Your task to perform on an android device: Go to Reddit.com Image 0: 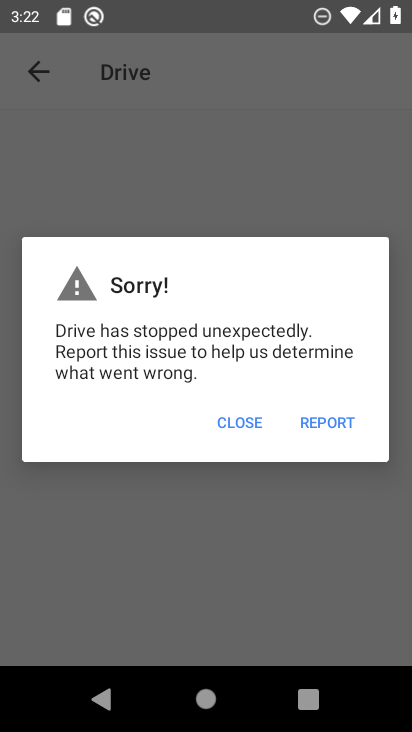
Step 0: press home button
Your task to perform on an android device: Go to Reddit.com Image 1: 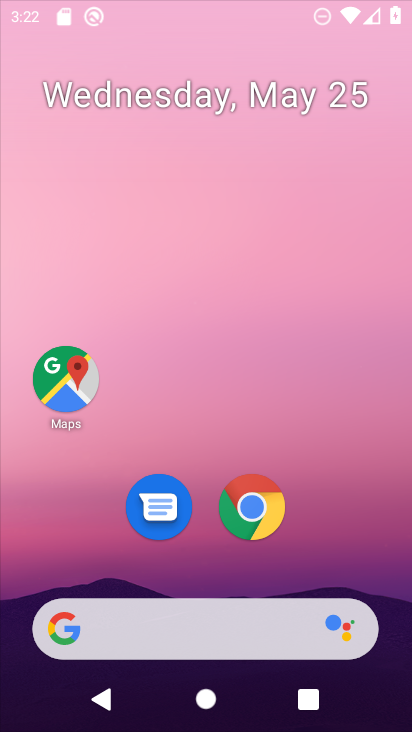
Step 1: drag from (229, 660) to (227, 228)
Your task to perform on an android device: Go to Reddit.com Image 2: 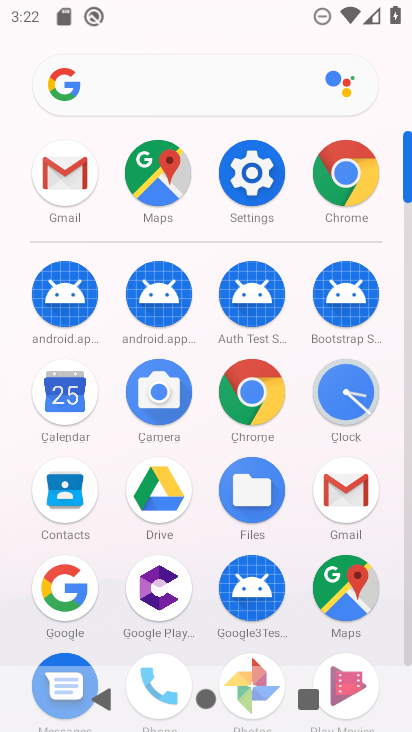
Step 2: click (356, 191)
Your task to perform on an android device: Go to Reddit.com Image 3: 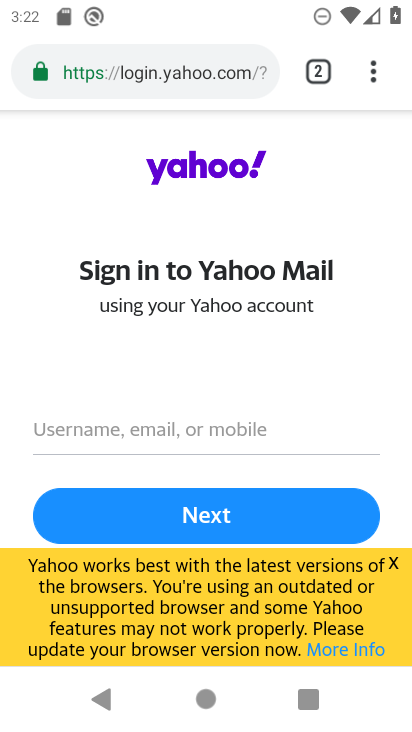
Step 3: click (224, 83)
Your task to perform on an android device: Go to Reddit.com Image 4: 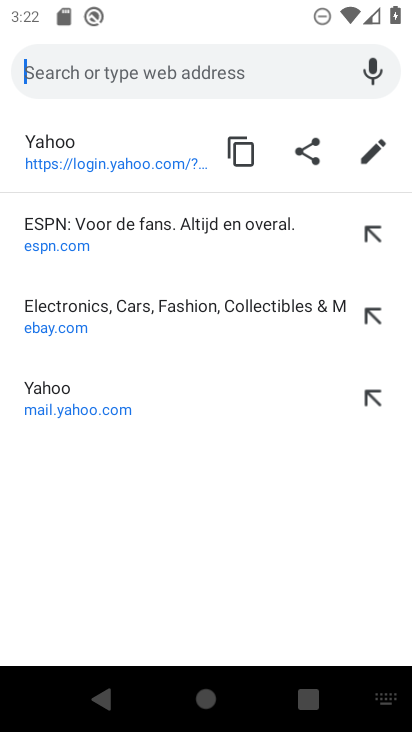
Step 4: type "reddit"
Your task to perform on an android device: Go to Reddit.com Image 5: 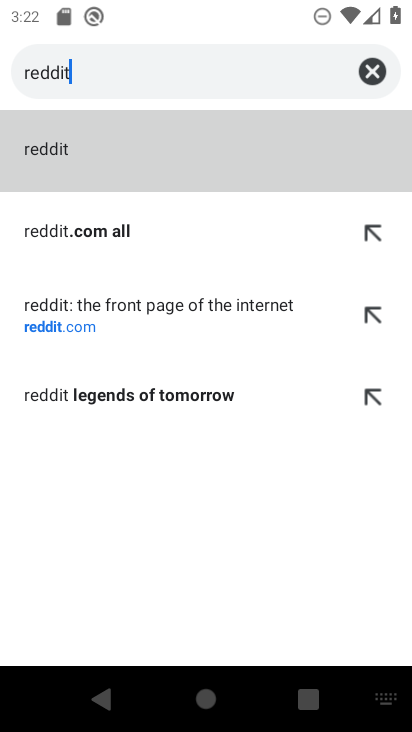
Step 5: click (119, 320)
Your task to perform on an android device: Go to Reddit.com Image 6: 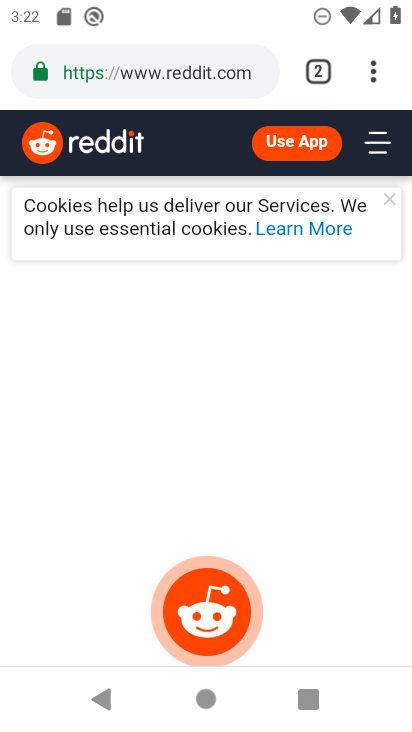
Step 6: task complete